Your task to perform on an android device: View the shopping cart on amazon. Search for "asus rog" on amazon, select the first entry, and add it to the cart. Image 0: 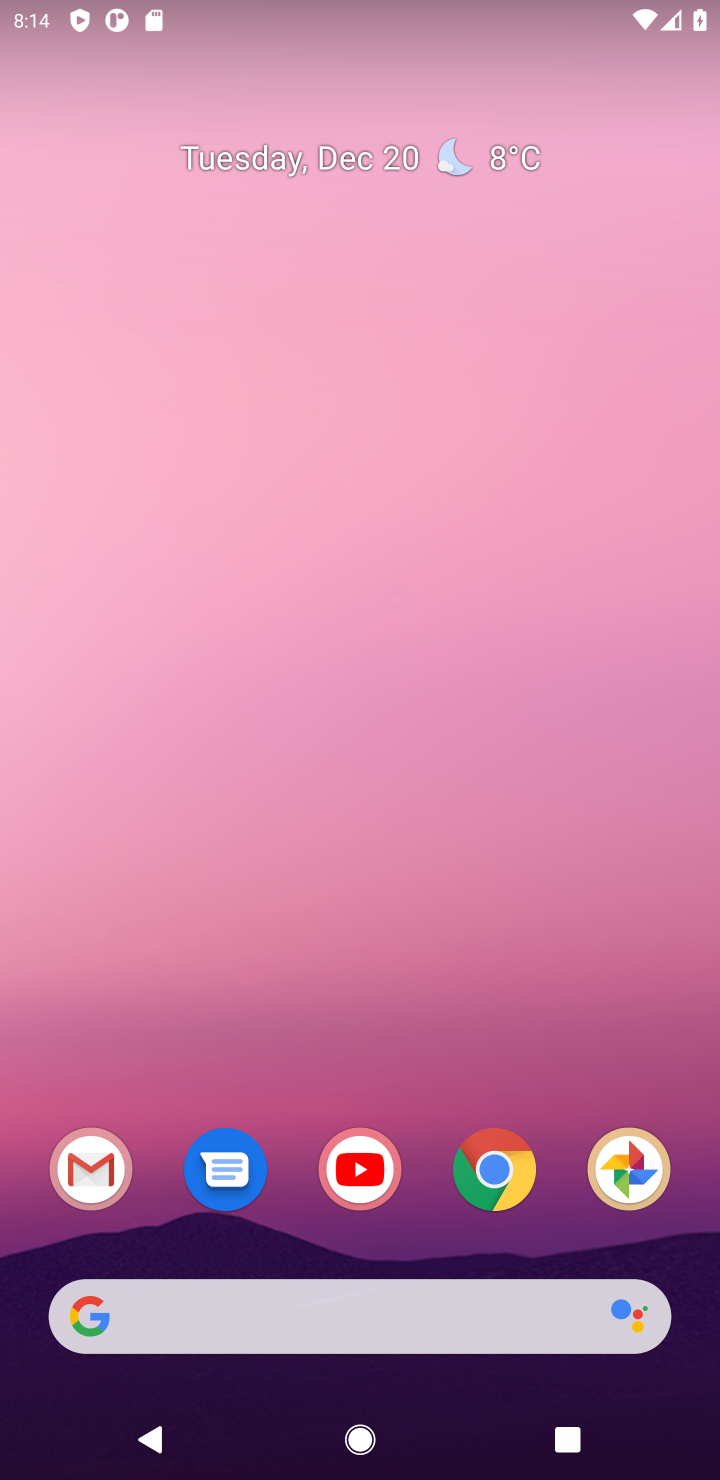
Step 0: click (505, 1191)
Your task to perform on an android device: View the shopping cart on amazon. Search for "asus rog" on amazon, select the first entry, and add it to the cart. Image 1: 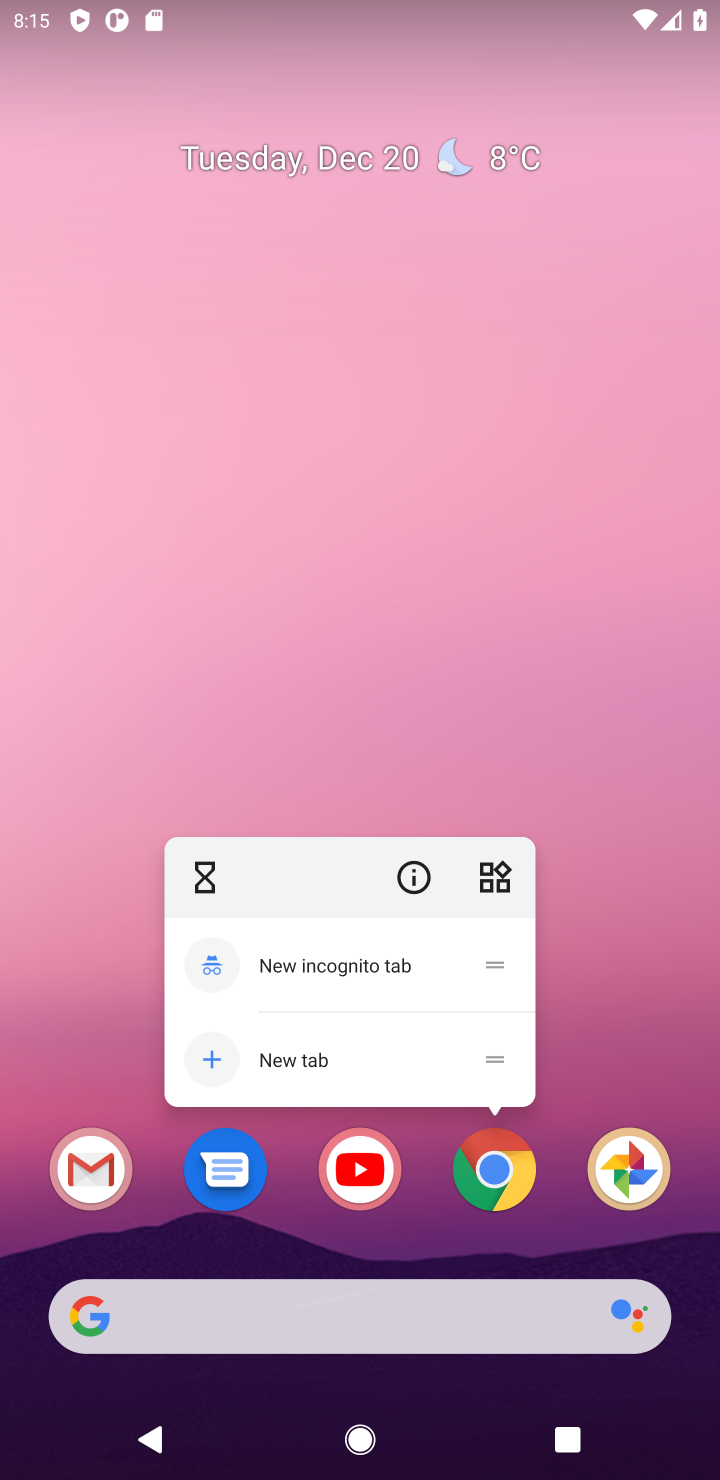
Step 1: click (505, 1191)
Your task to perform on an android device: View the shopping cart on amazon. Search for "asus rog" on amazon, select the first entry, and add it to the cart. Image 2: 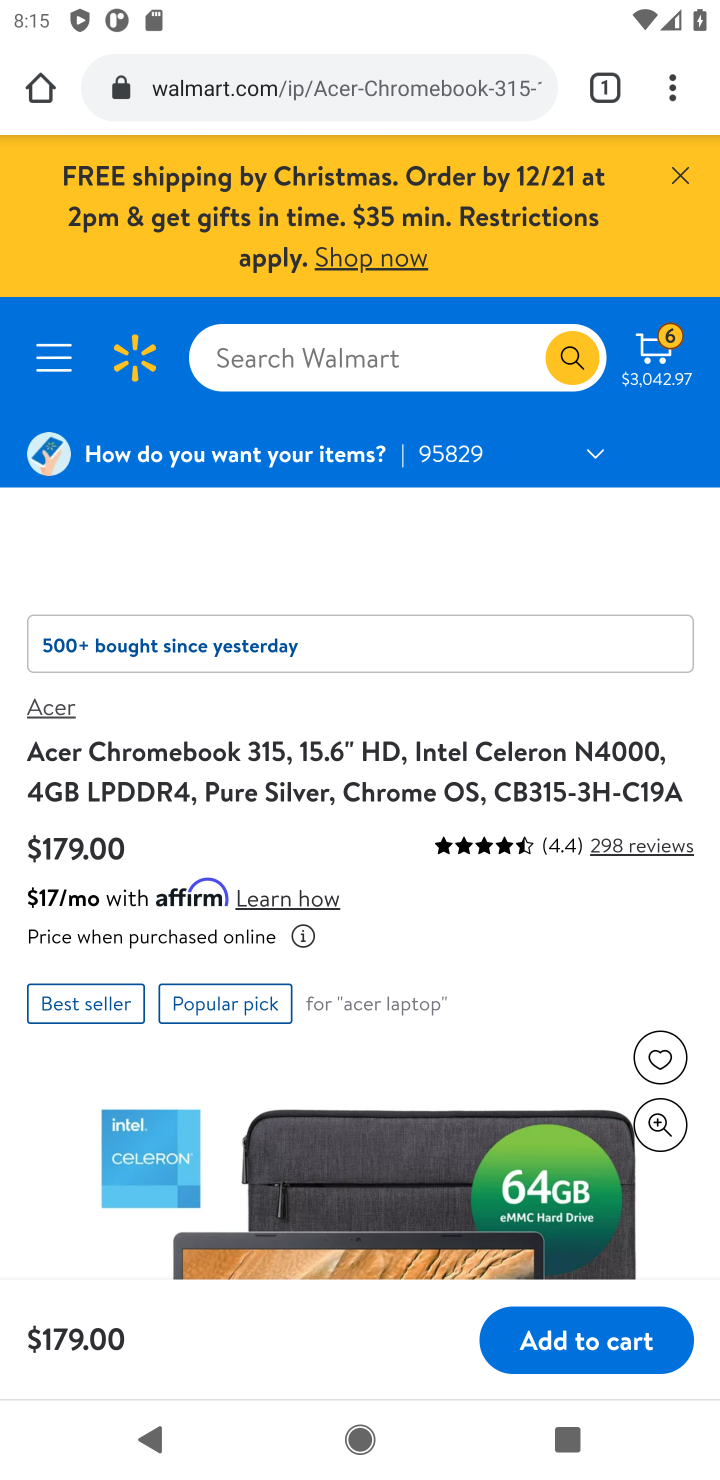
Step 2: click (377, 114)
Your task to perform on an android device: View the shopping cart on amazon. Search for "asus rog" on amazon, select the first entry, and add it to the cart. Image 3: 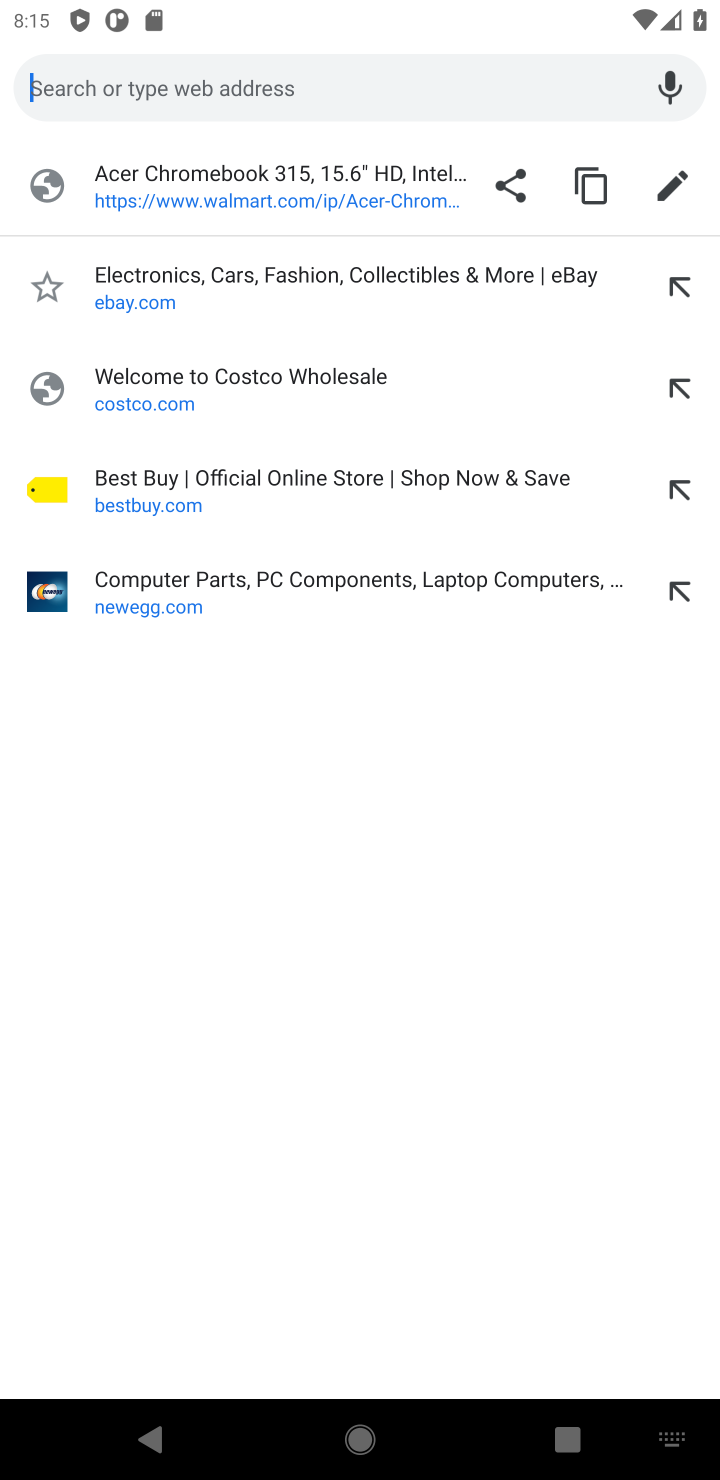
Step 3: type "amazon"
Your task to perform on an android device: View the shopping cart on amazon. Search for "asus rog" on amazon, select the first entry, and add it to the cart. Image 4: 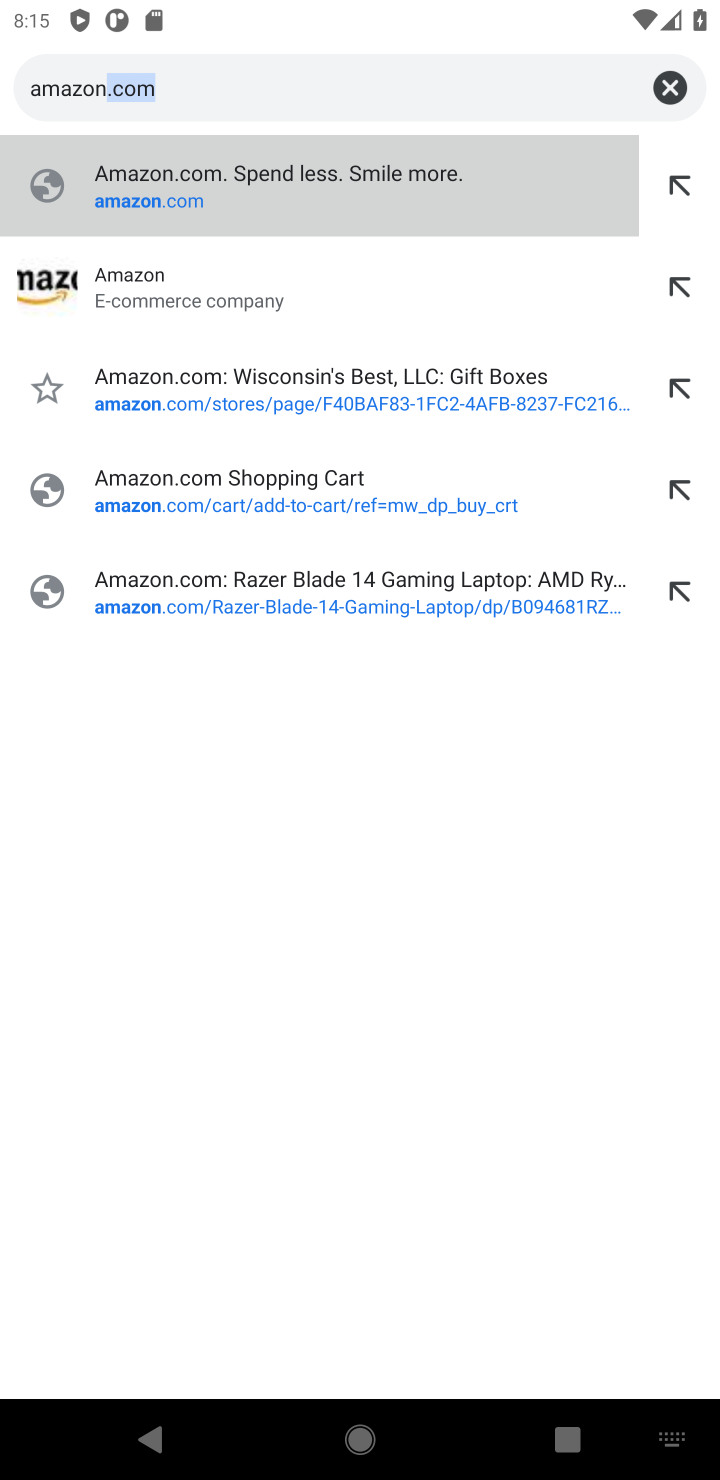
Step 4: click (215, 162)
Your task to perform on an android device: View the shopping cart on amazon. Search for "asus rog" on amazon, select the first entry, and add it to the cart. Image 5: 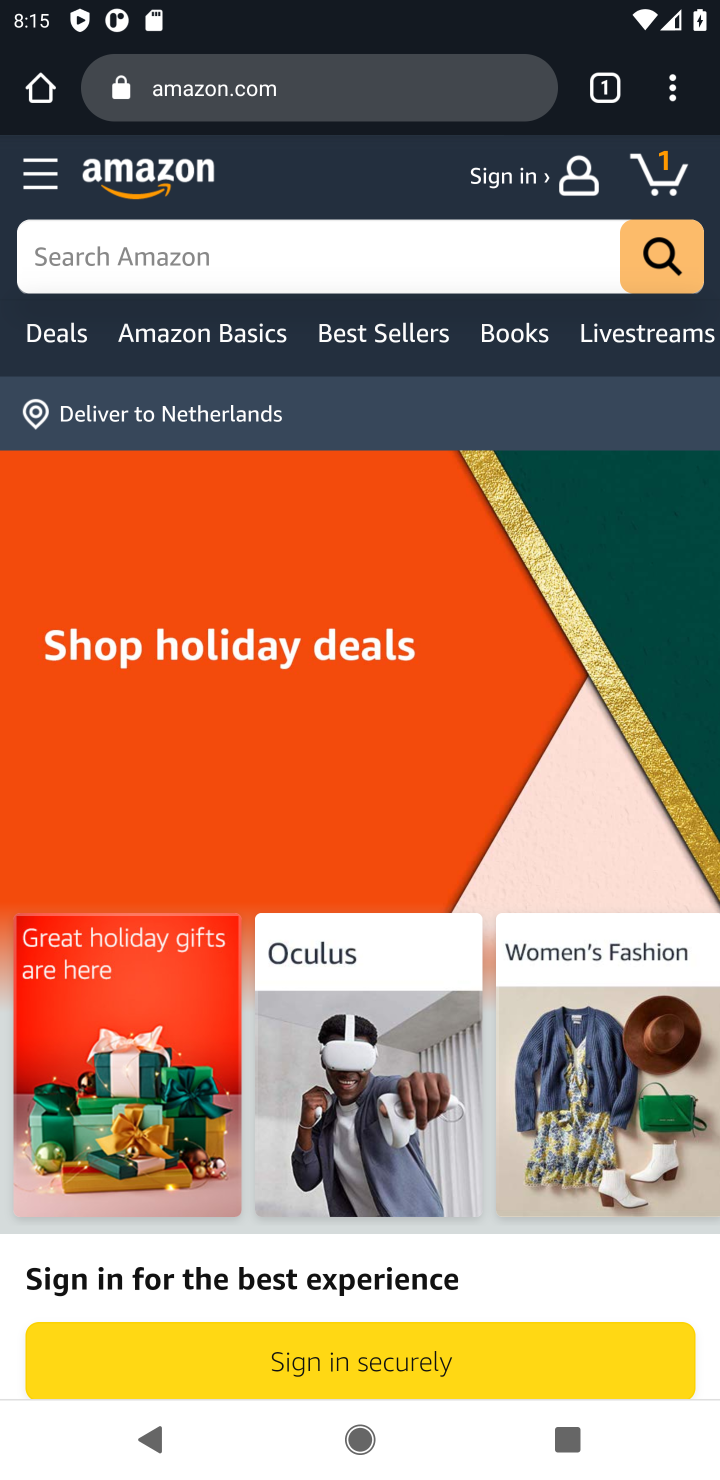
Step 5: click (137, 251)
Your task to perform on an android device: View the shopping cart on amazon. Search for "asus rog" on amazon, select the first entry, and add it to the cart. Image 6: 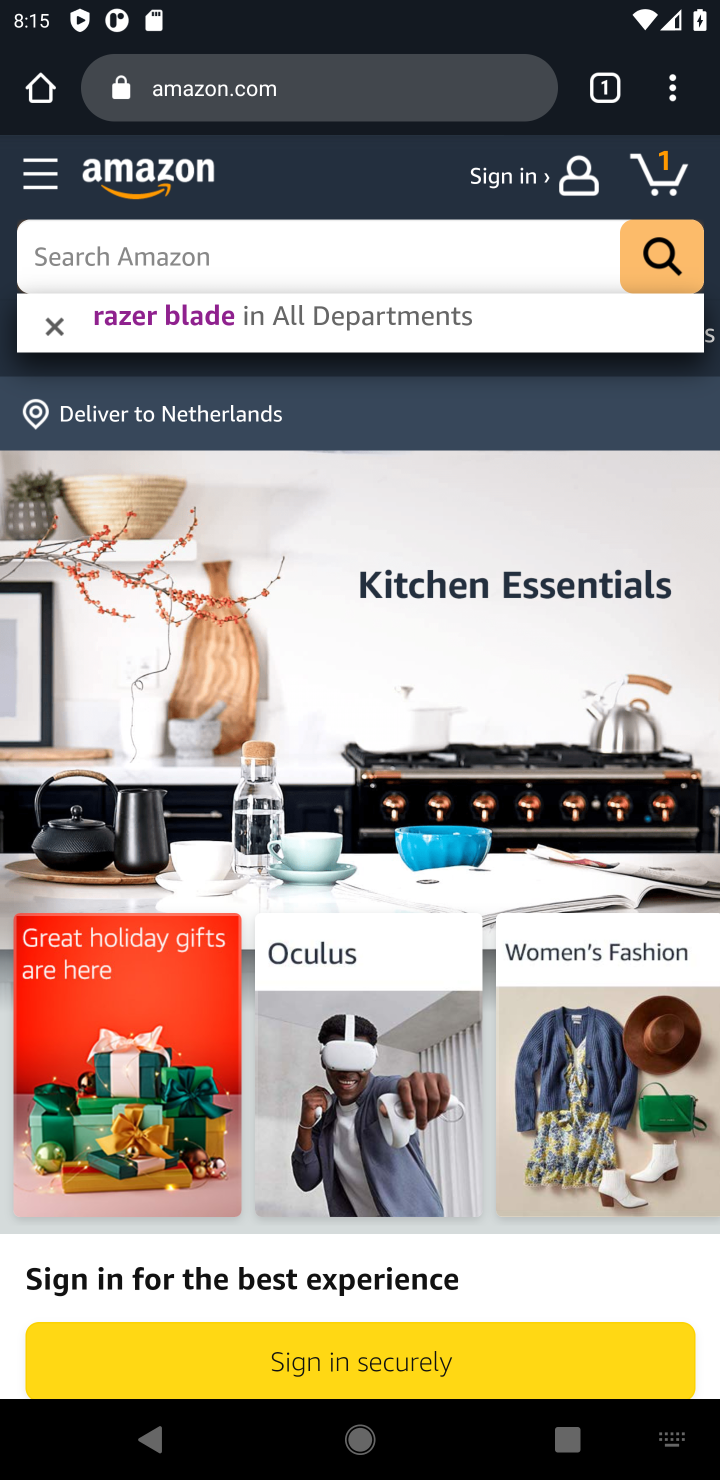
Step 6: type "aus rog"
Your task to perform on an android device: View the shopping cart on amazon. Search for "asus rog" on amazon, select the first entry, and add it to the cart. Image 7: 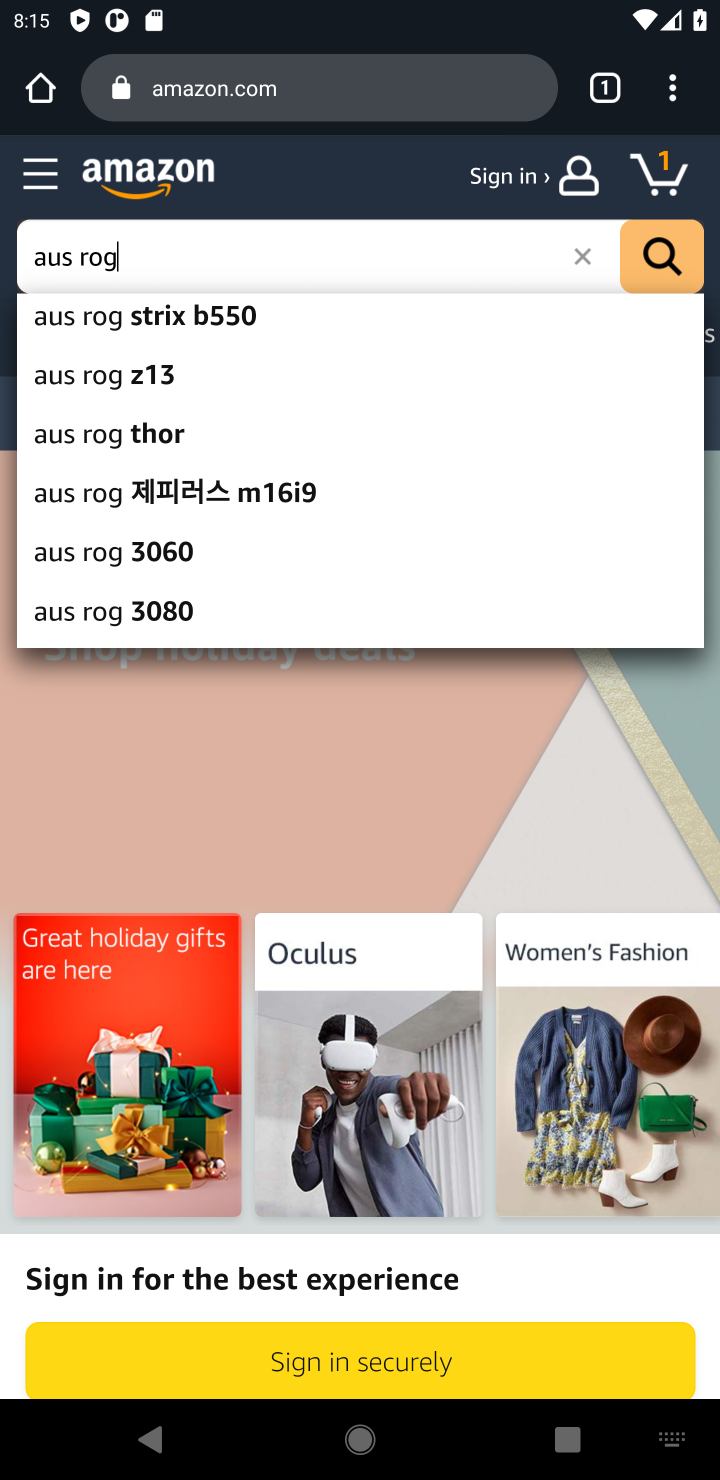
Step 7: click (77, 367)
Your task to perform on an android device: View the shopping cart on amazon. Search for "asus rog" on amazon, select the first entry, and add it to the cart. Image 8: 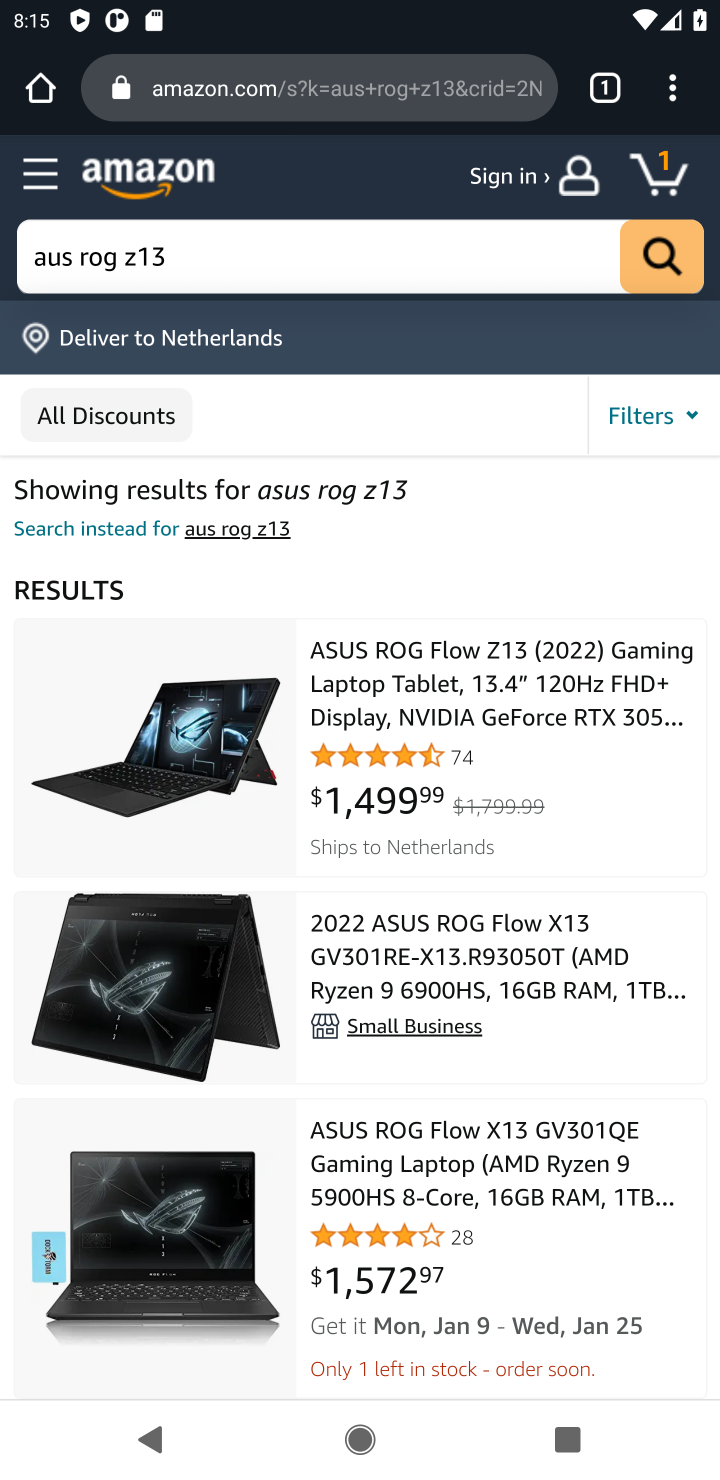
Step 8: click (381, 637)
Your task to perform on an android device: View the shopping cart on amazon. Search for "asus rog" on amazon, select the first entry, and add it to the cart. Image 9: 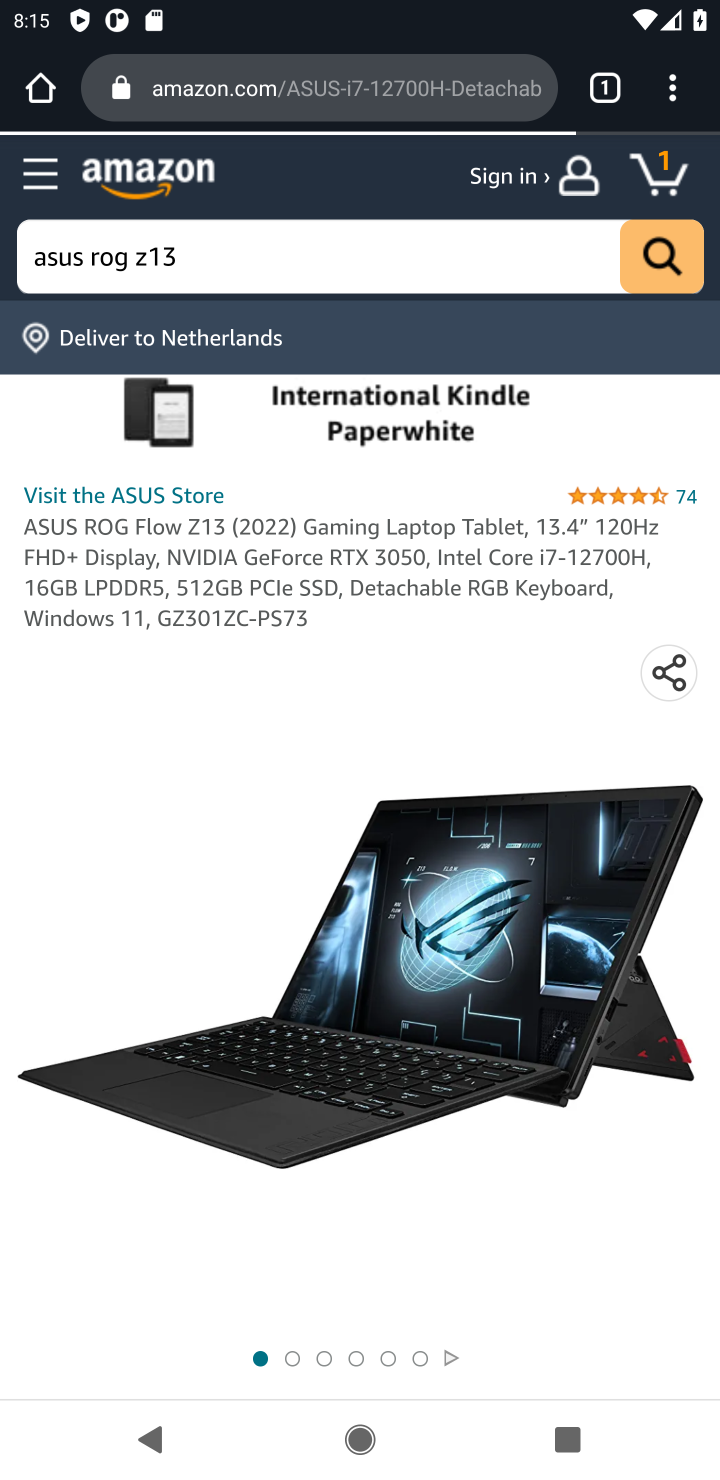
Step 9: task complete